Your task to perform on an android device: open the mobile data screen to see how much data has been used Image 0: 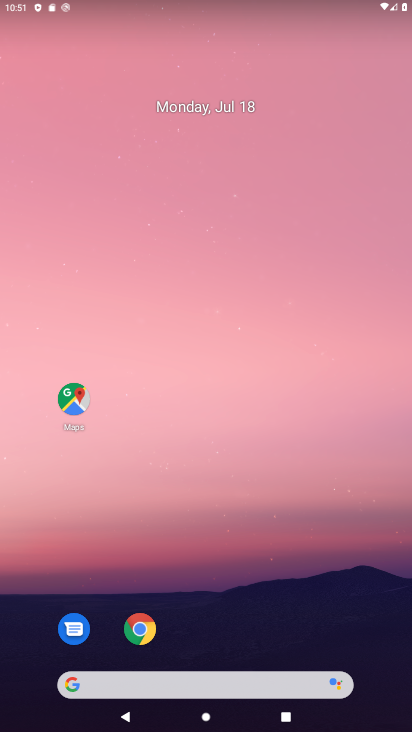
Step 0: drag from (377, 701) to (291, 87)
Your task to perform on an android device: open the mobile data screen to see how much data has been used Image 1: 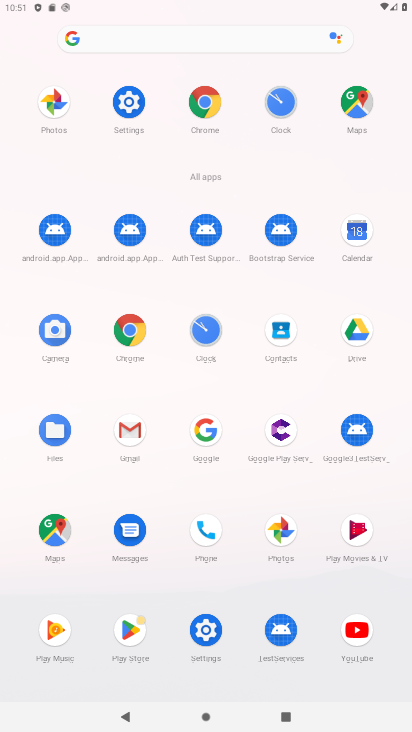
Step 1: click (123, 101)
Your task to perform on an android device: open the mobile data screen to see how much data has been used Image 2: 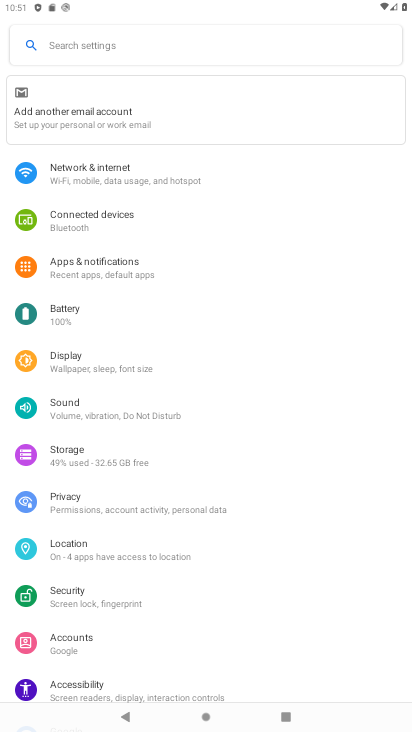
Step 2: click (69, 172)
Your task to perform on an android device: open the mobile data screen to see how much data has been used Image 3: 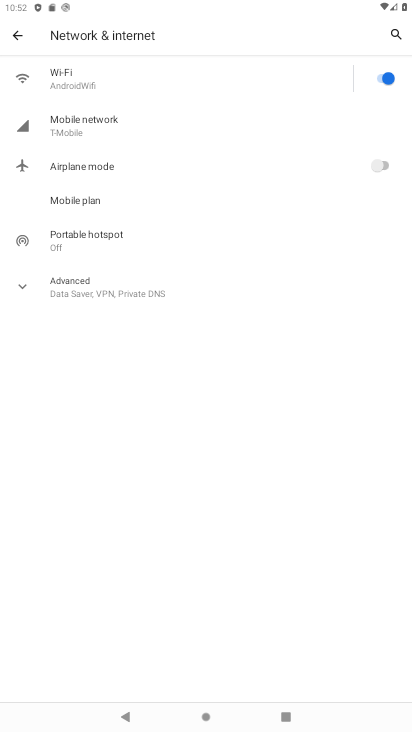
Step 3: click (75, 128)
Your task to perform on an android device: open the mobile data screen to see how much data has been used Image 4: 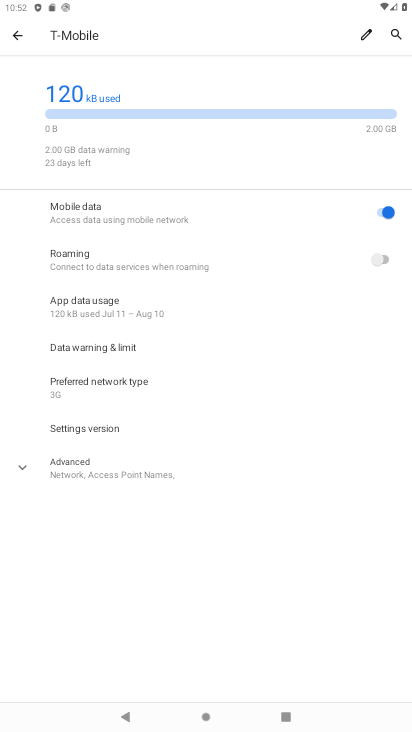
Step 4: task complete